Your task to perform on an android device: find photos in the google photos app Image 0: 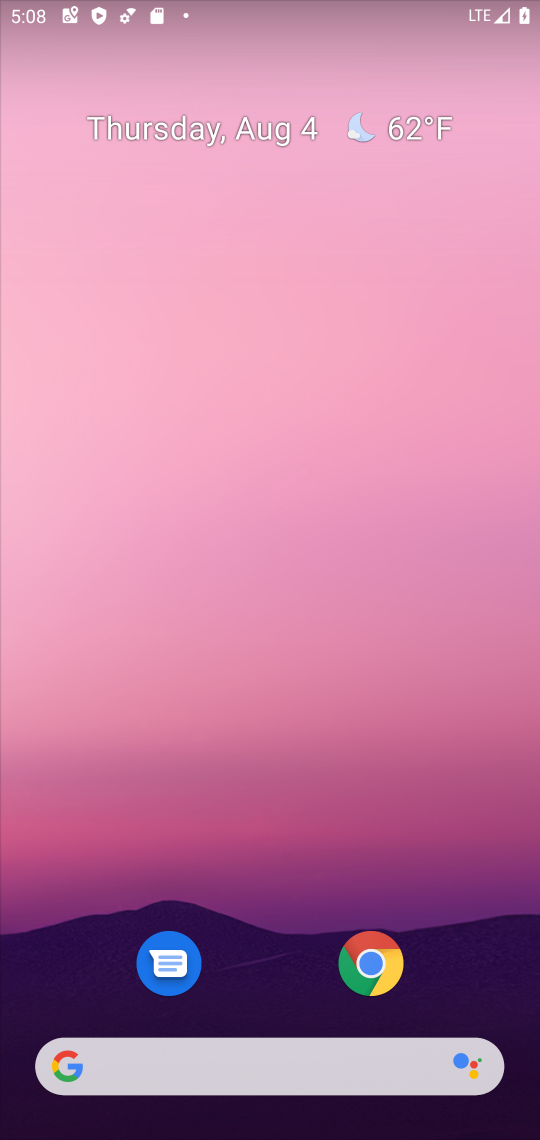
Step 0: drag from (223, 834) to (217, 154)
Your task to perform on an android device: find photos in the google photos app Image 1: 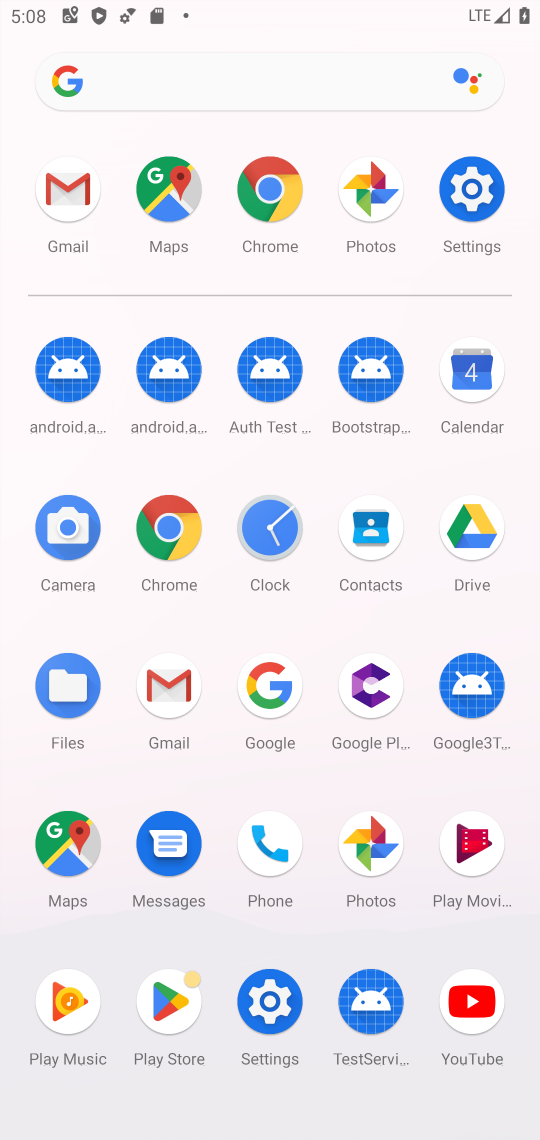
Step 1: click (365, 178)
Your task to perform on an android device: find photos in the google photos app Image 2: 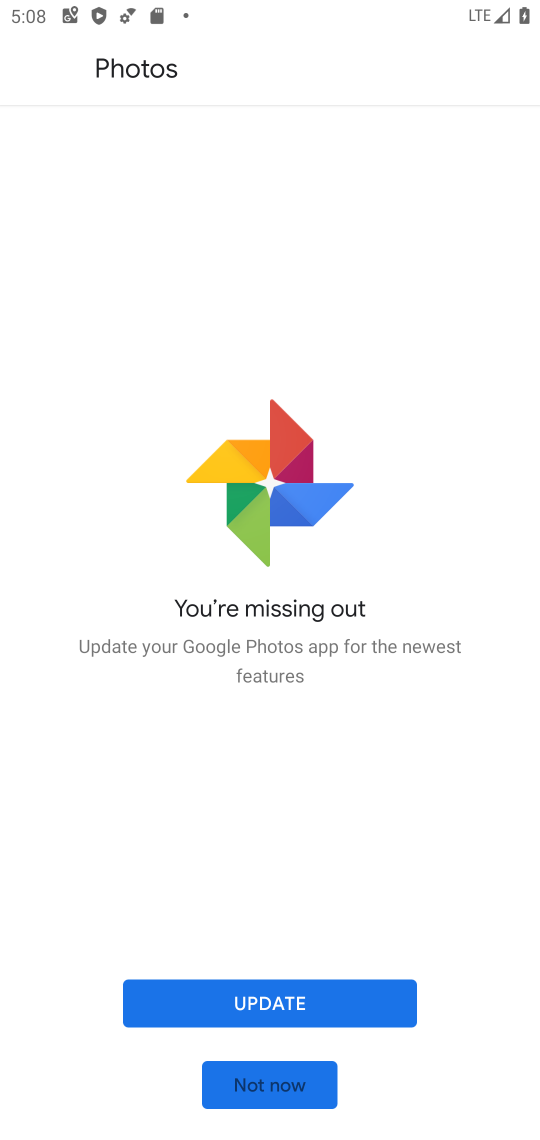
Step 2: click (271, 991)
Your task to perform on an android device: find photos in the google photos app Image 3: 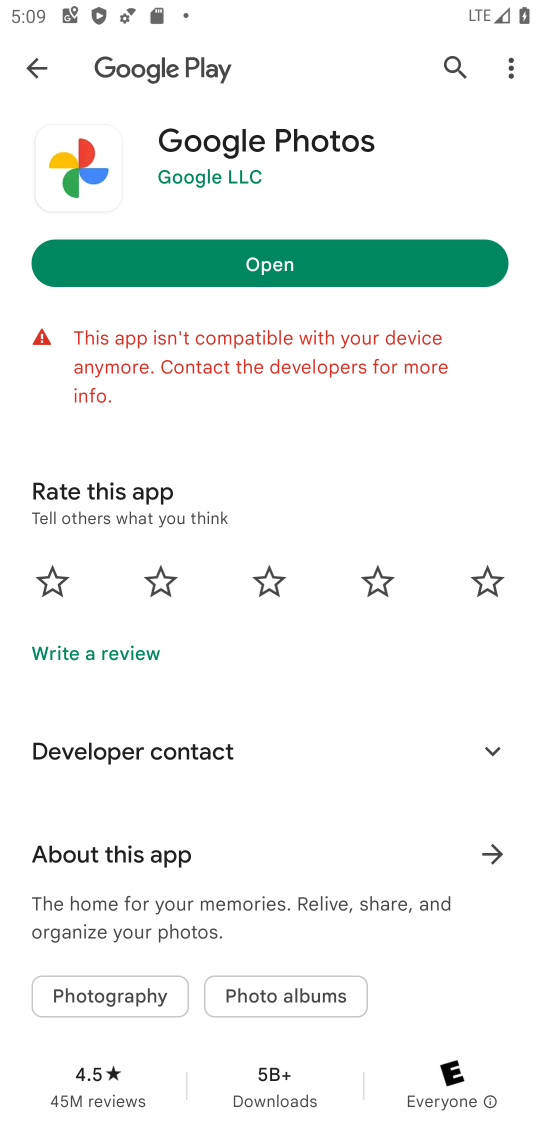
Step 3: click (278, 264)
Your task to perform on an android device: find photos in the google photos app Image 4: 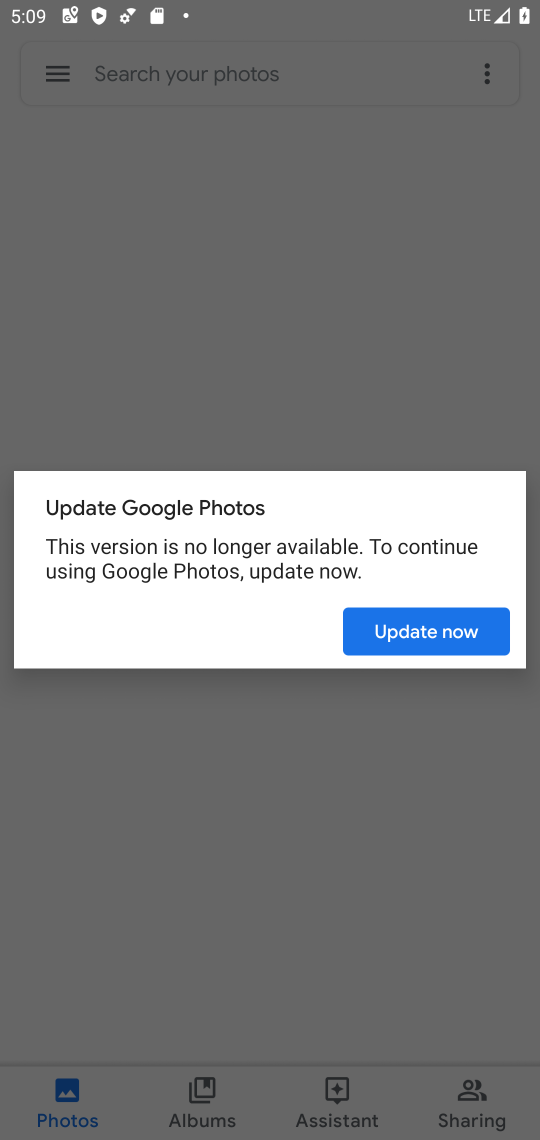
Step 4: click (405, 626)
Your task to perform on an android device: find photos in the google photos app Image 5: 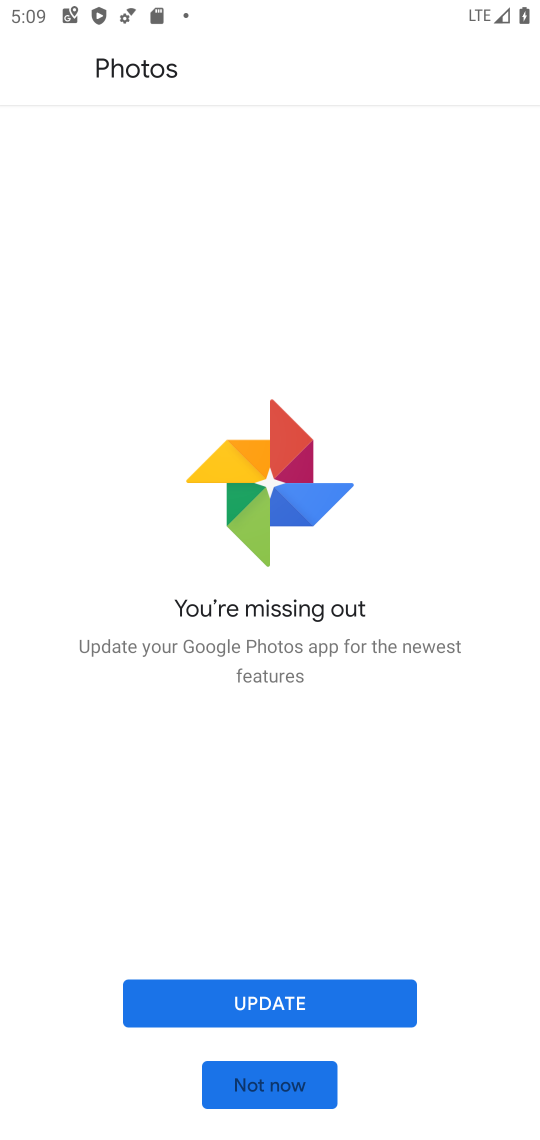
Step 5: click (269, 996)
Your task to perform on an android device: find photos in the google photos app Image 6: 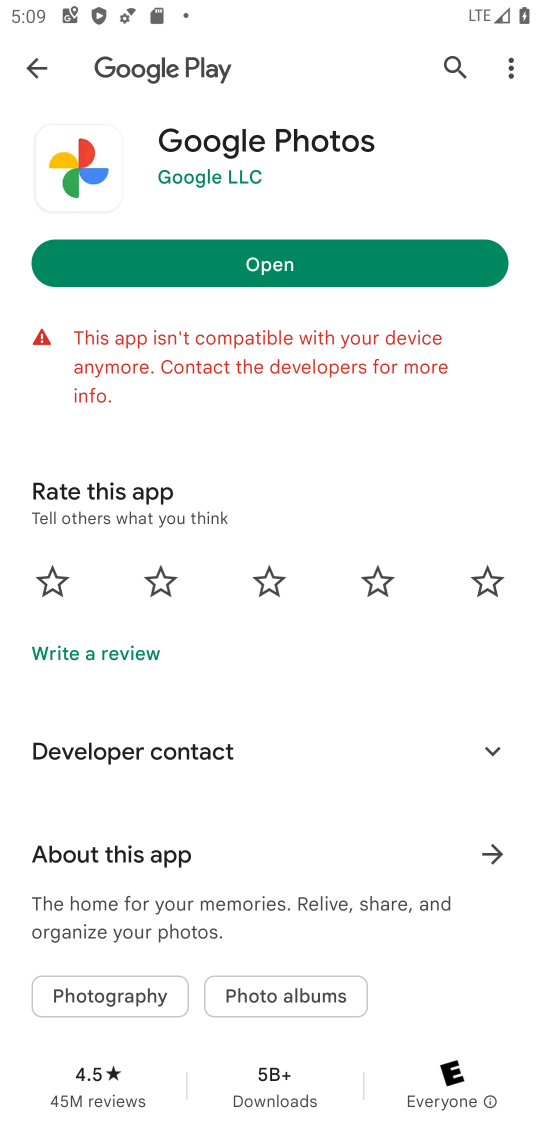
Step 6: click (267, 254)
Your task to perform on an android device: find photos in the google photos app Image 7: 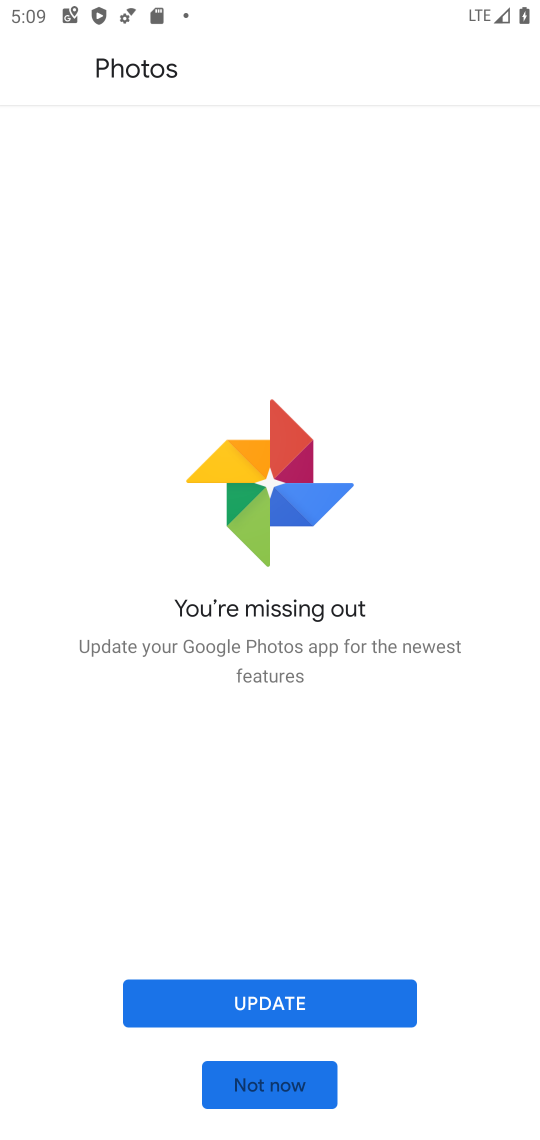
Step 7: click (265, 993)
Your task to perform on an android device: find photos in the google photos app Image 8: 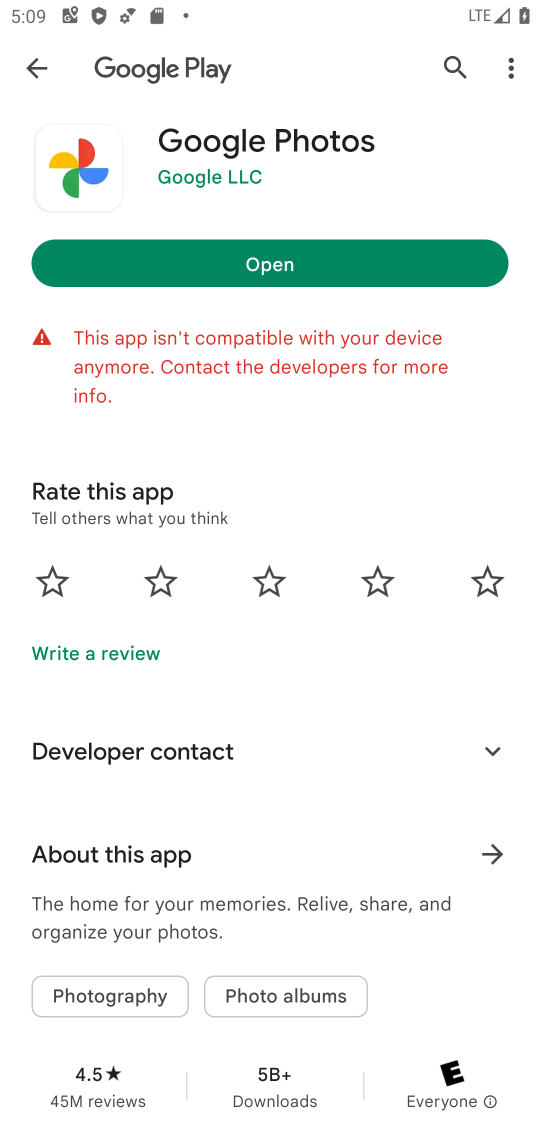
Step 8: click (258, 264)
Your task to perform on an android device: find photos in the google photos app Image 9: 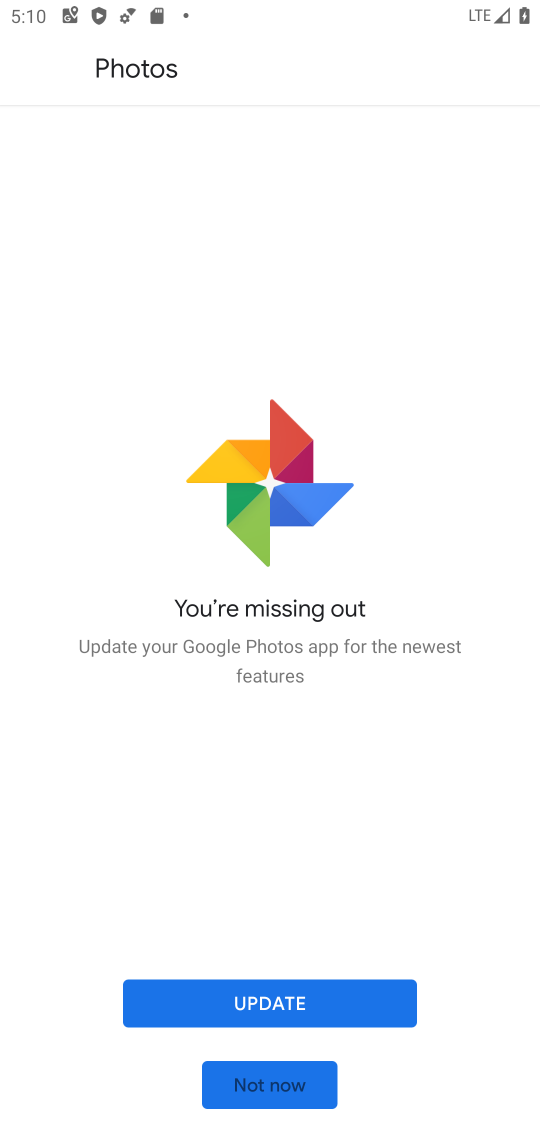
Step 9: click (256, 990)
Your task to perform on an android device: find photos in the google photos app Image 10: 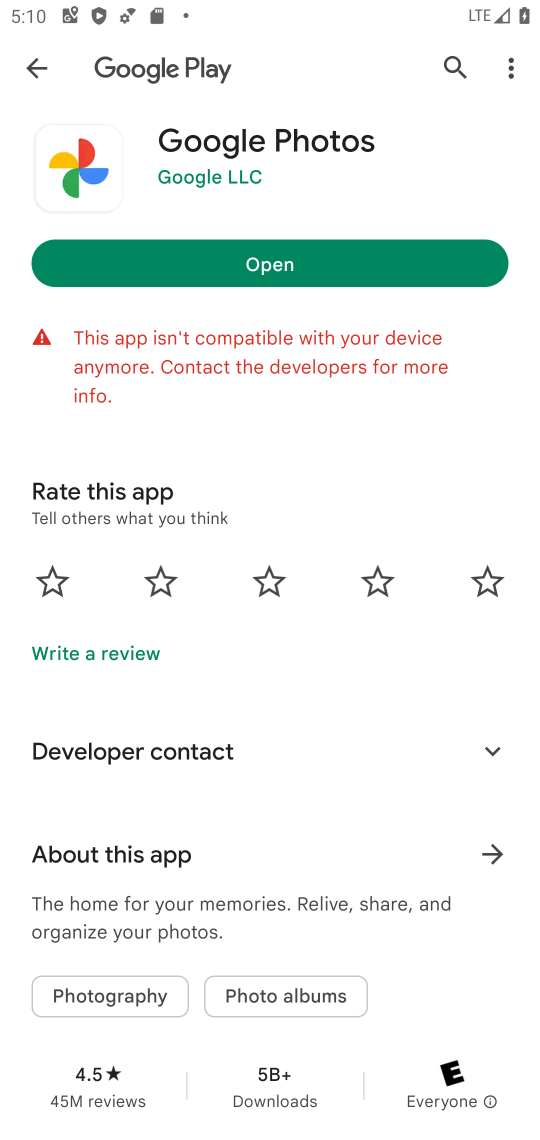
Step 10: task complete